Your task to perform on an android device: What's the weather going to be this weekend? Image 0: 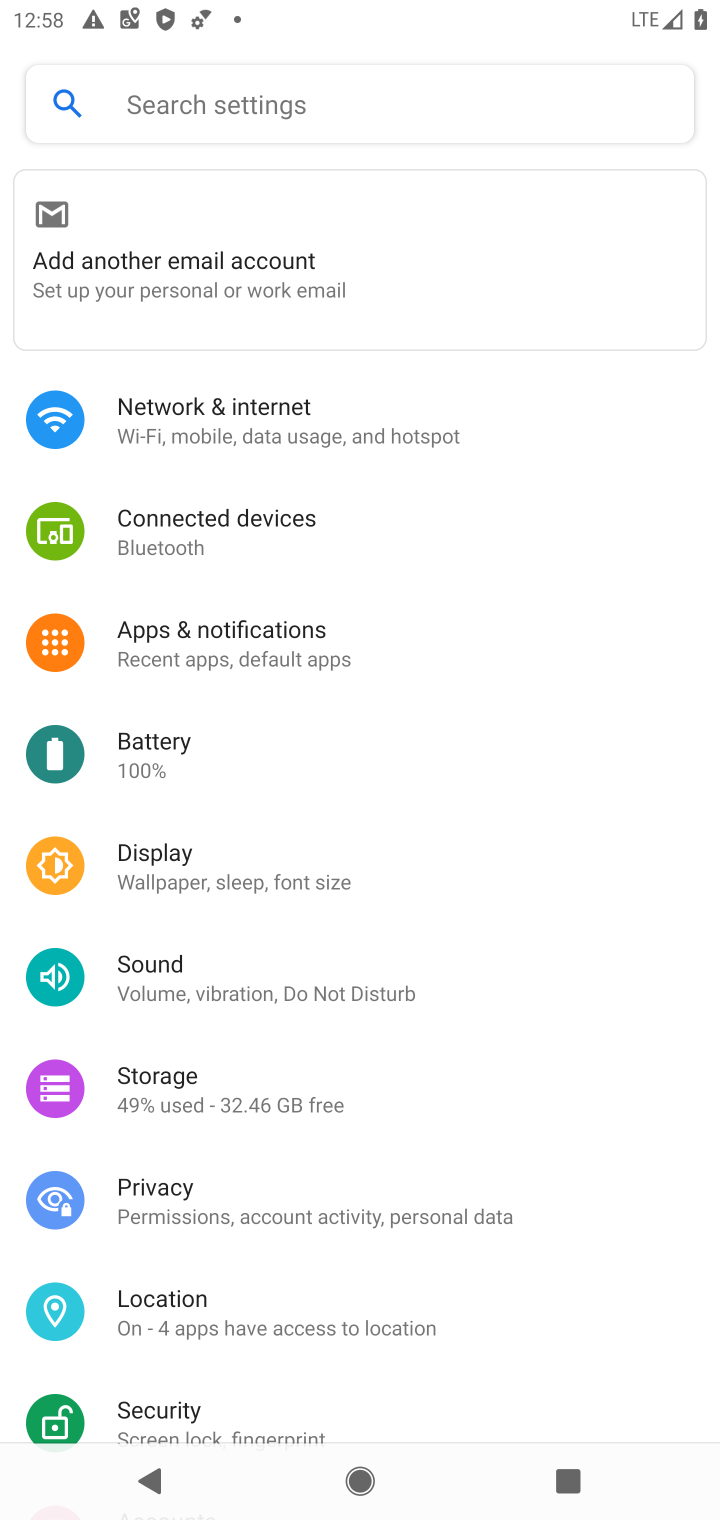
Step 0: press back button
Your task to perform on an android device: What's the weather going to be this weekend? Image 1: 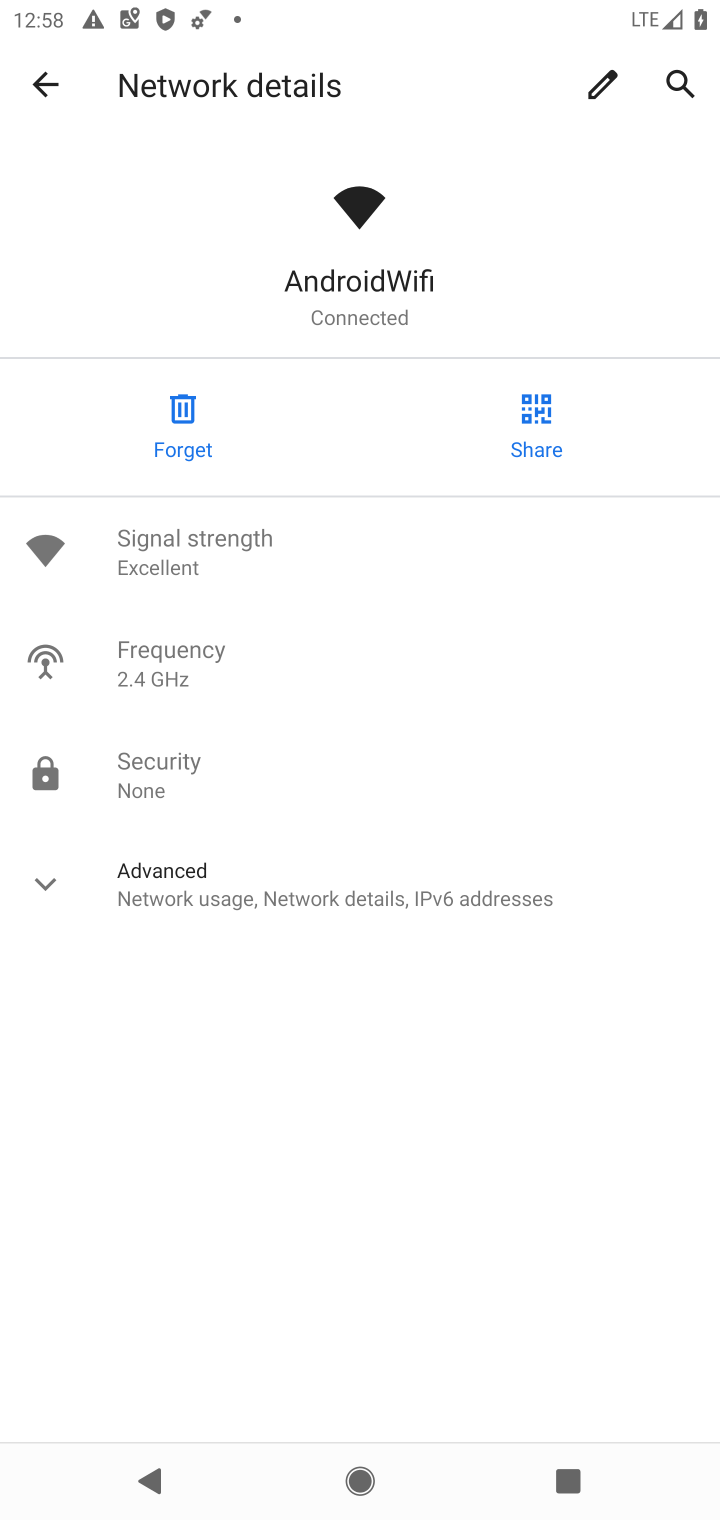
Step 1: press home button
Your task to perform on an android device: What's the weather going to be this weekend? Image 2: 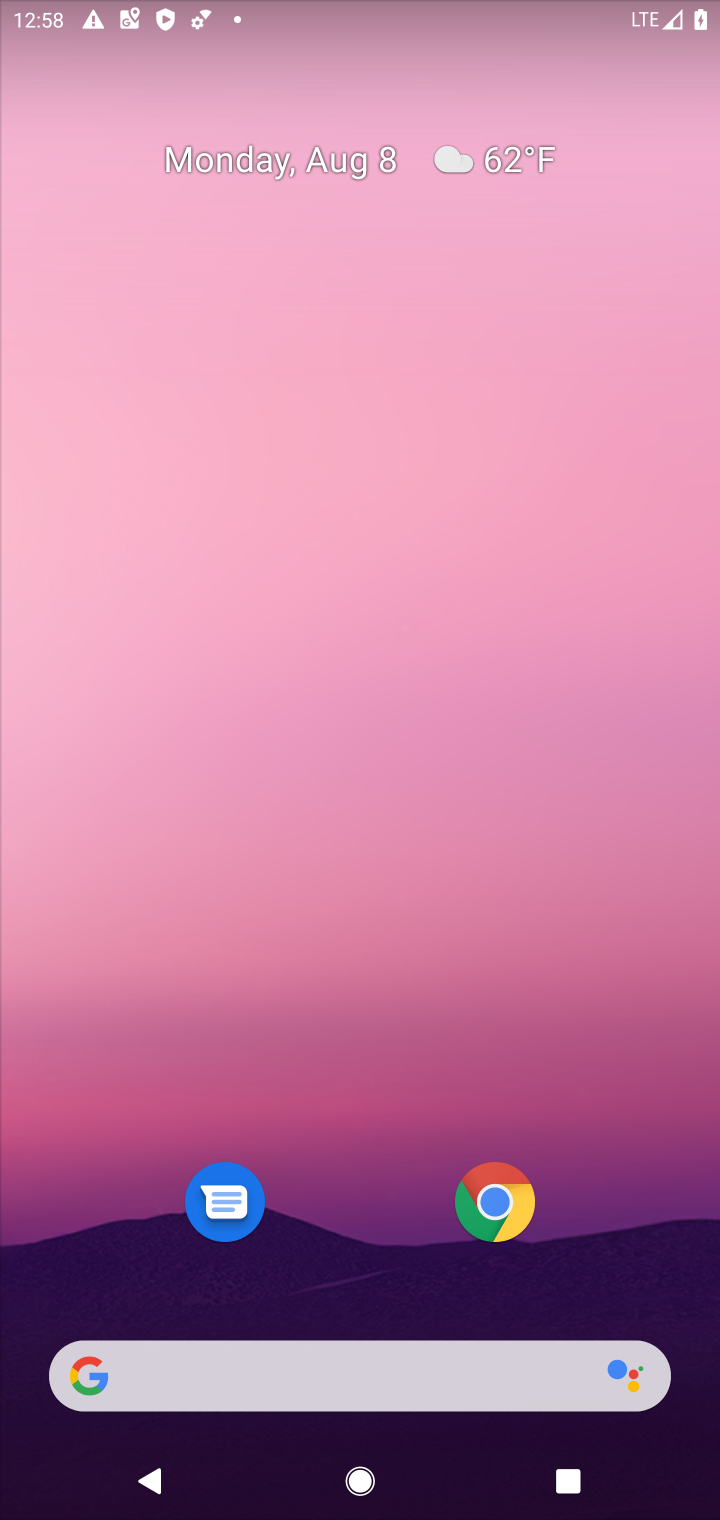
Step 2: click (256, 1366)
Your task to perform on an android device: What's the weather going to be this weekend? Image 3: 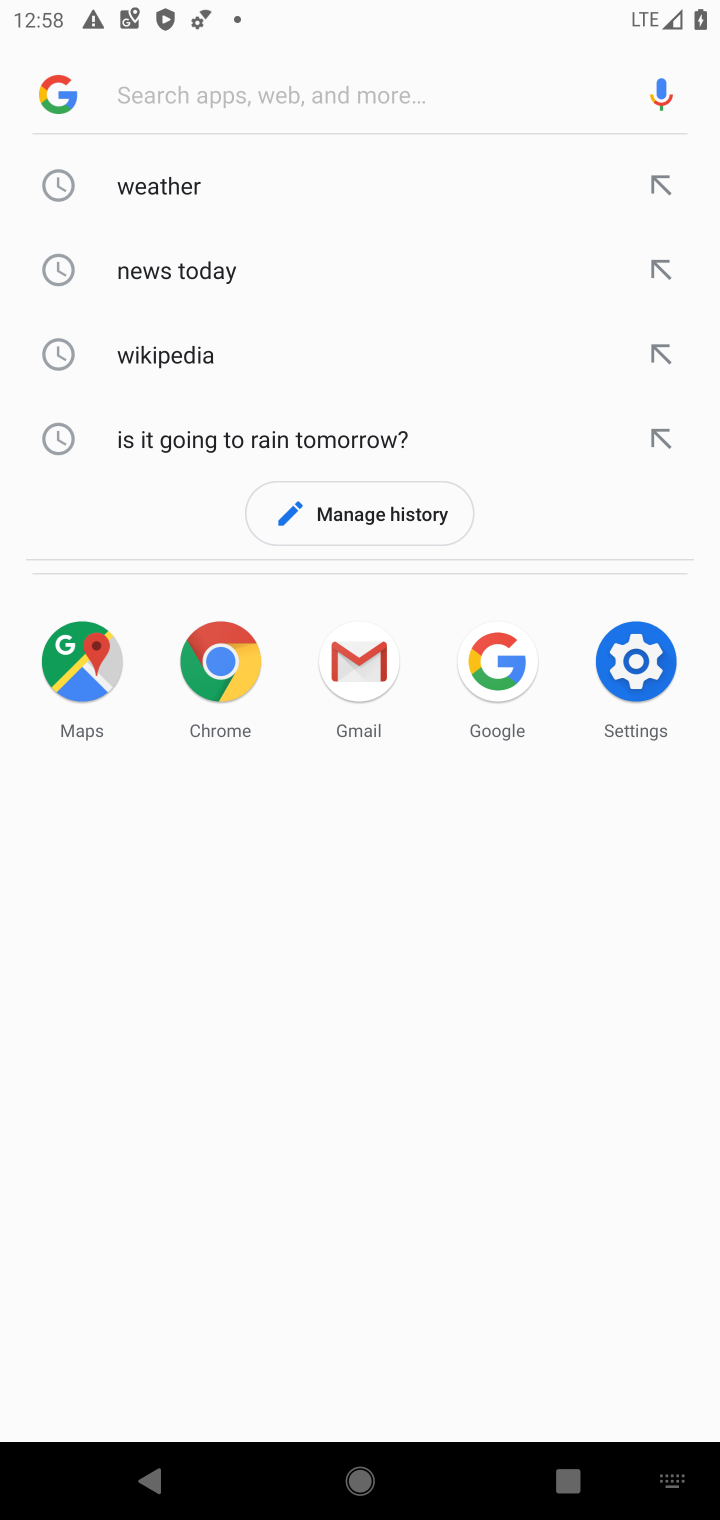
Step 3: click (188, 194)
Your task to perform on an android device: What's the weather going to be this weekend? Image 4: 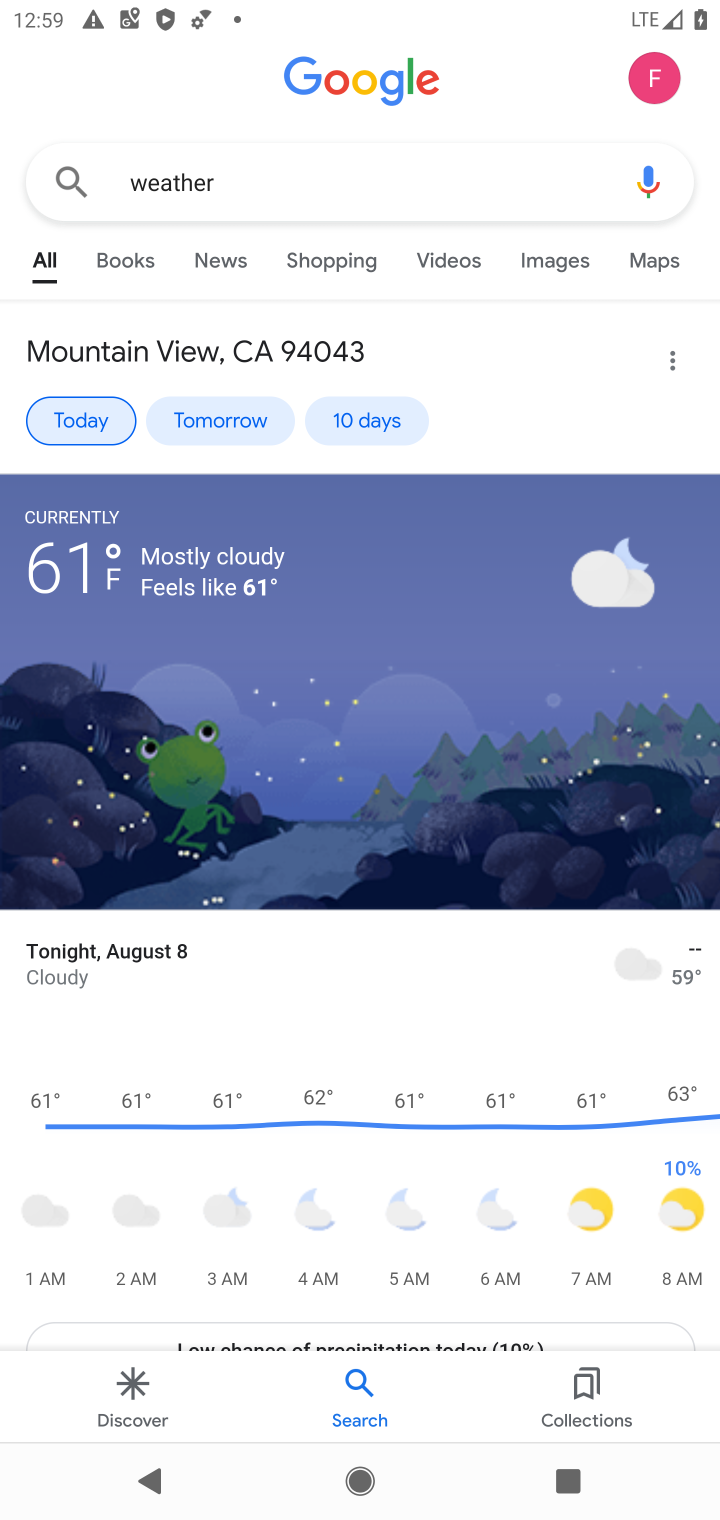
Step 4: click (219, 422)
Your task to perform on an android device: What's the weather going to be this weekend? Image 5: 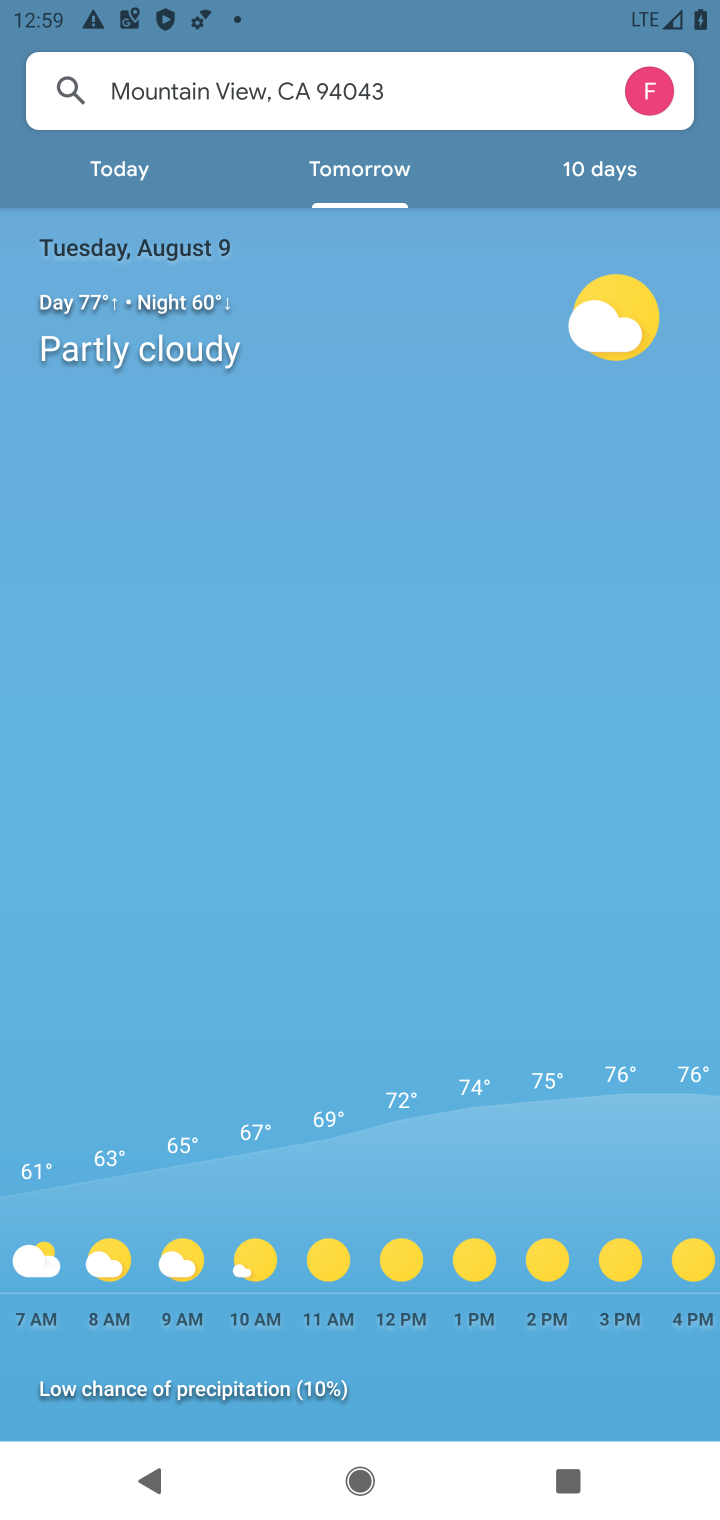
Step 5: task complete